Your task to perform on an android device: Search for 5 star sushi restaurants on Maps Image 0: 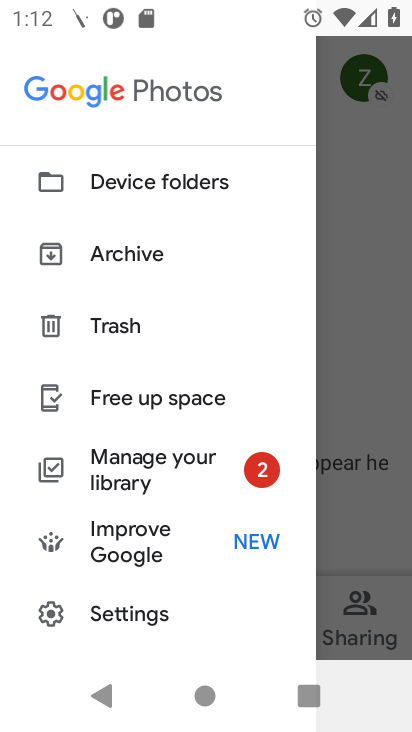
Step 0: press home button
Your task to perform on an android device: Search for 5 star sushi restaurants on Maps Image 1: 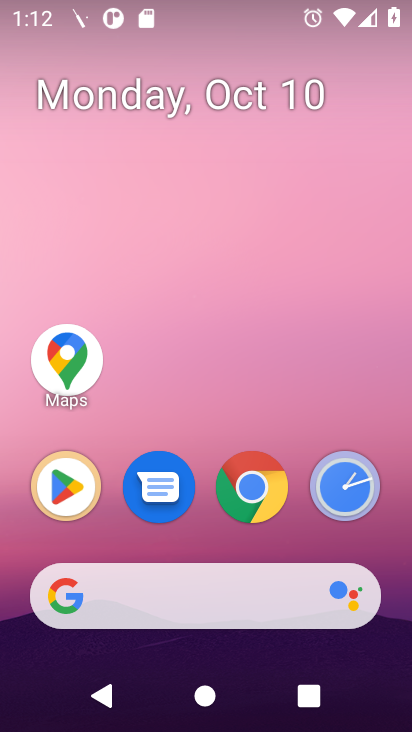
Step 1: click (260, 493)
Your task to perform on an android device: Search for 5 star sushi restaurants on Maps Image 2: 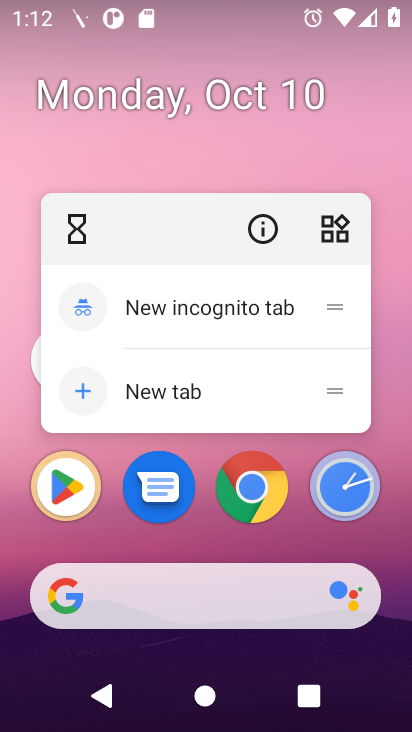
Step 2: drag from (230, 708) to (228, 123)
Your task to perform on an android device: Search for 5 star sushi restaurants on Maps Image 3: 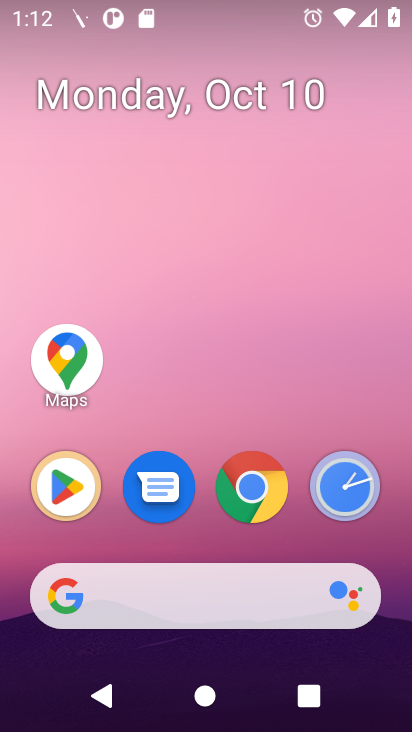
Step 3: click (65, 372)
Your task to perform on an android device: Search for 5 star sushi restaurants on Maps Image 4: 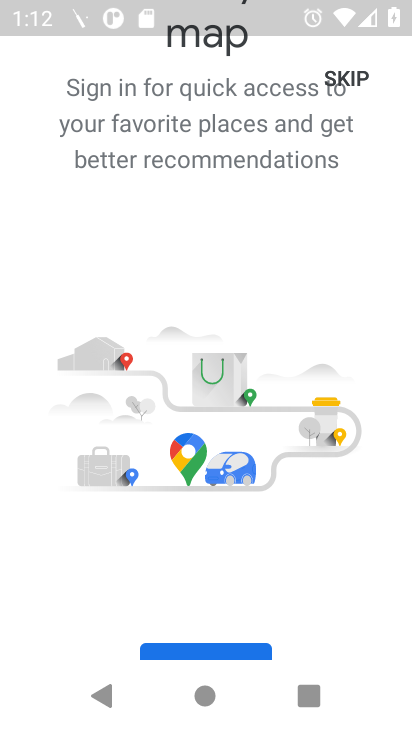
Step 4: click (208, 647)
Your task to perform on an android device: Search for 5 star sushi restaurants on Maps Image 5: 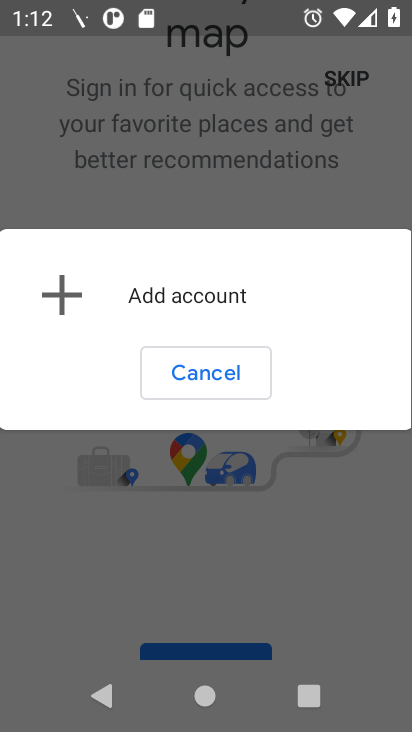
Step 5: click (220, 361)
Your task to perform on an android device: Search for 5 star sushi restaurants on Maps Image 6: 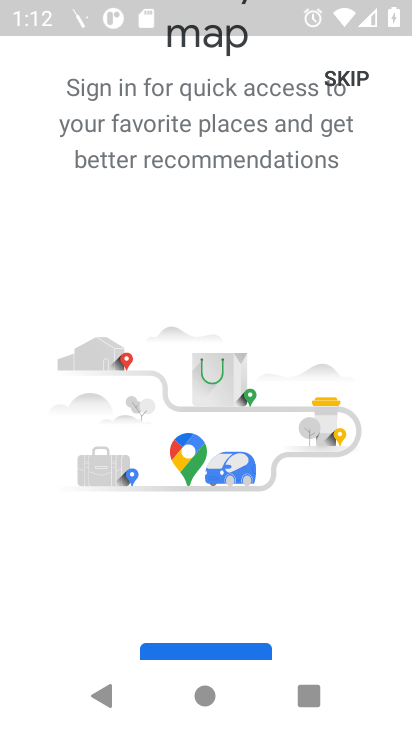
Step 6: click (351, 63)
Your task to perform on an android device: Search for 5 star sushi restaurants on Maps Image 7: 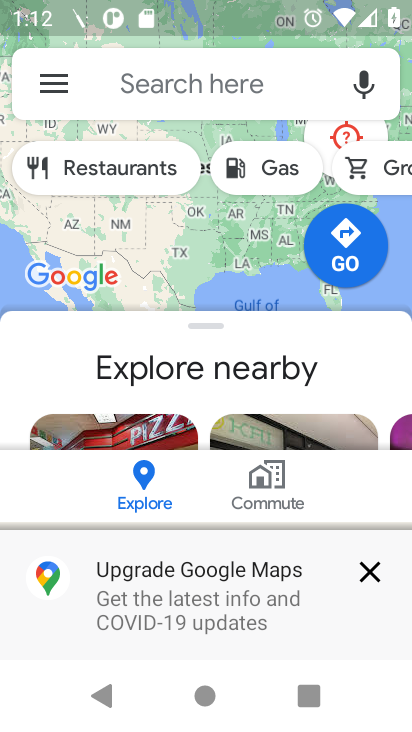
Step 7: click (236, 96)
Your task to perform on an android device: Search for 5 star sushi restaurants on Maps Image 8: 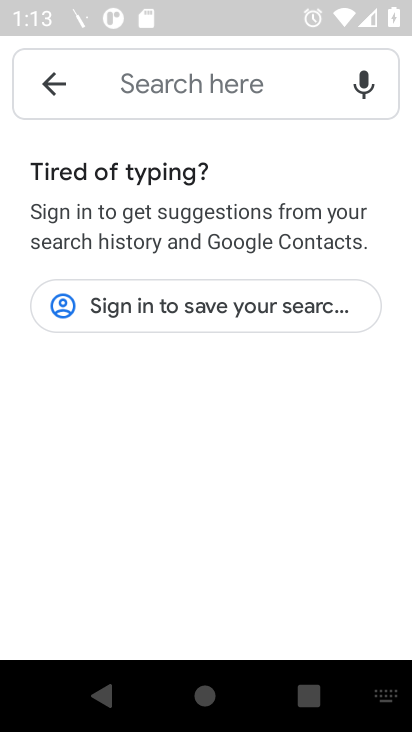
Step 8: type "5 star sushi restaurants on Maps"
Your task to perform on an android device: Search for 5 star sushi restaurants on Maps Image 9: 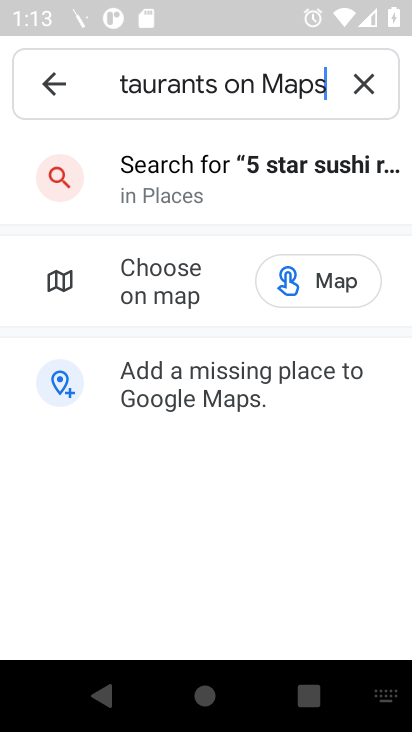
Step 9: type ""
Your task to perform on an android device: Search for 5 star sushi restaurants on Maps Image 10: 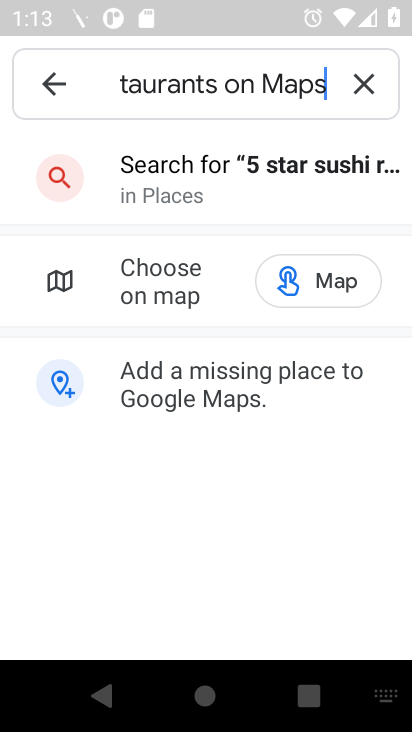
Step 10: press enter
Your task to perform on an android device: Search for 5 star sushi restaurants on Maps Image 11: 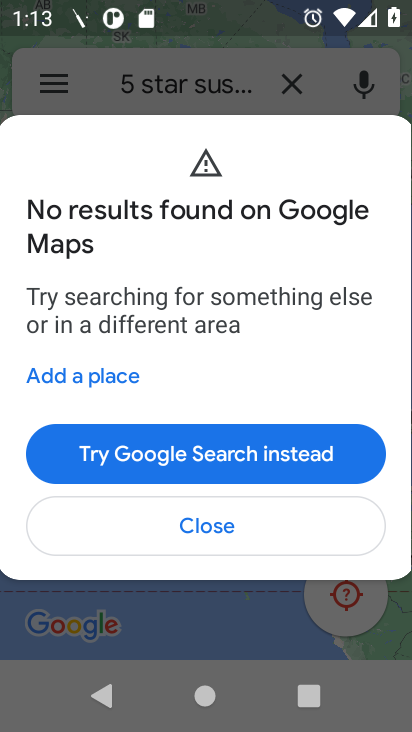
Step 11: click (232, 522)
Your task to perform on an android device: Search for 5 star sushi restaurants on Maps Image 12: 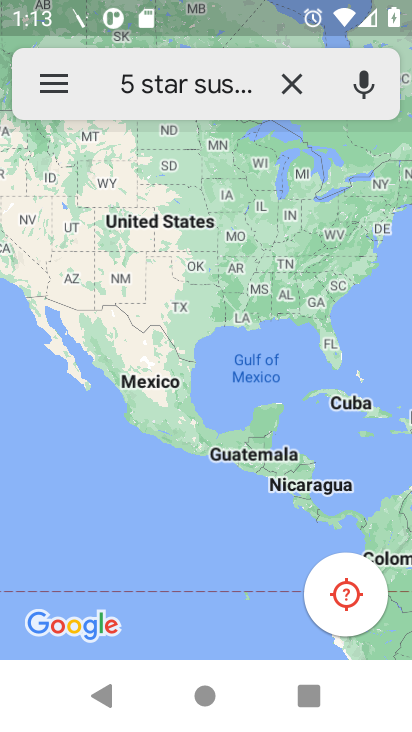
Step 12: click (272, 87)
Your task to perform on an android device: Search for 5 star sushi restaurants on Maps Image 13: 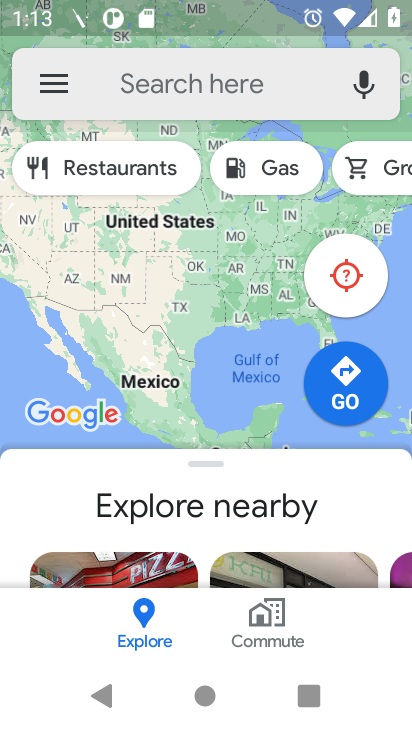
Step 13: click (272, 87)
Your task to perform on an android device: Search for 5 star sushi restaurants on Maps Image 14: 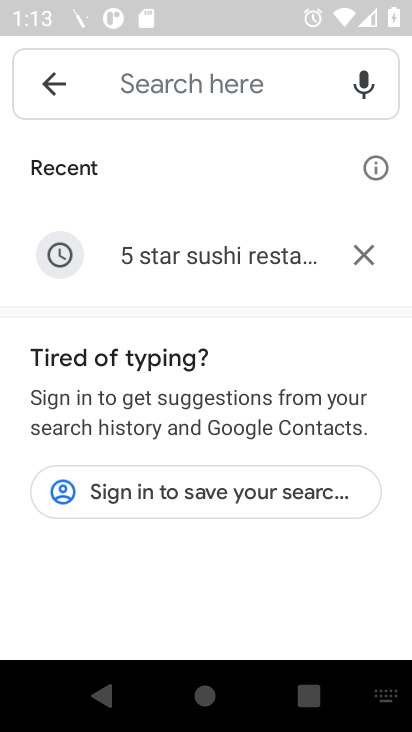
Step 14: type "5 star sushi restaurant"
Your task to perform on an android device: Search for 5 star sushi restaurants on Maps Image 15: 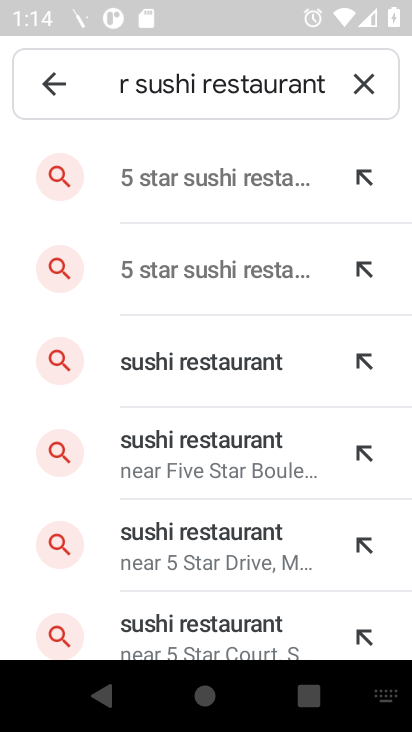
Step 15: press enter
Your task to perform on an android device: Search for 5 star sushi restaurants on Maps Image 16: 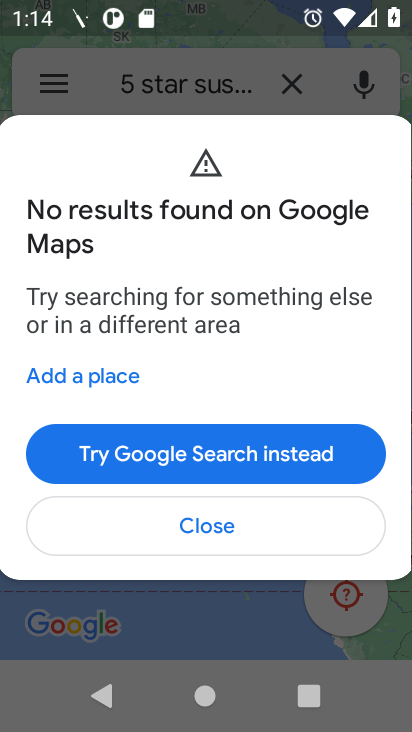
Step 16: task complete